Your task to perform on an android device: Go to ESPN.com Image 0: 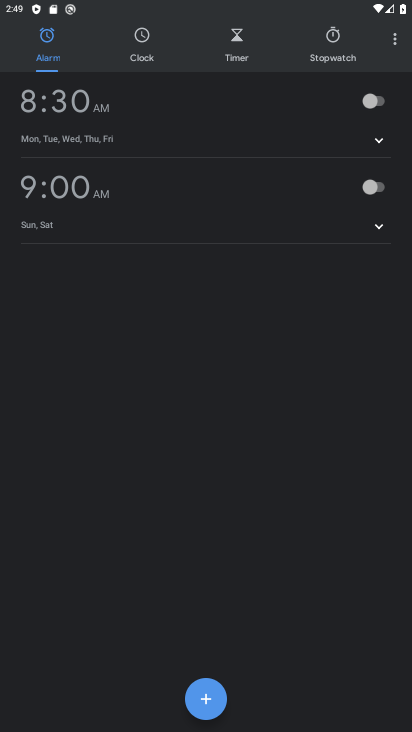
Step 0: press home button
Your task to perform on an android device: Go to ESPN.com Image 1: 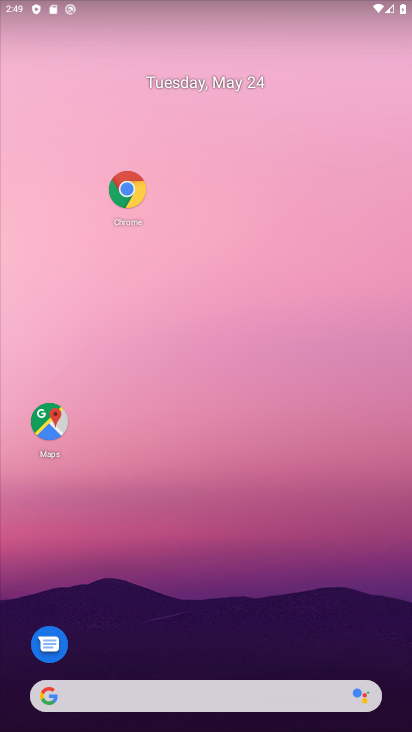
Step 1: drag from (185, 626) to (236, 43)
Your task to perform on an android device: Go to ESPN.com Image 2: 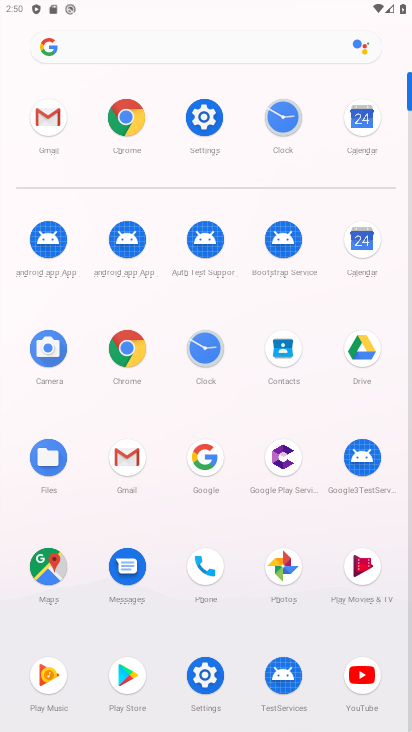
Step 2: click (208, 454)
Your task to perform on an android device: Go to ESPN.com Image 3: 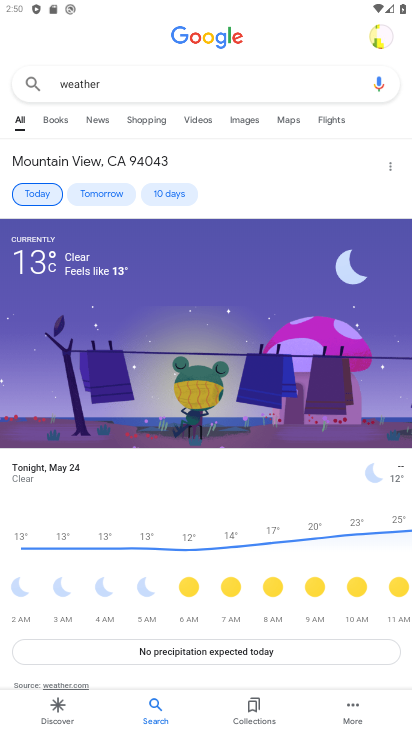
Step 3: click (144, 88)
Your task to perform on an android device: Go to ESPN.com Image 4: 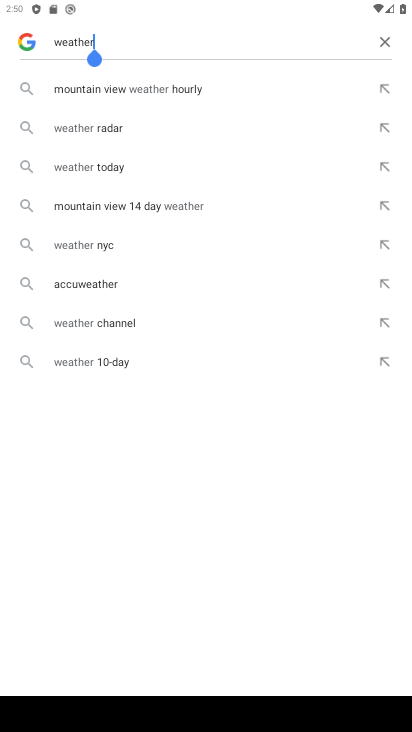
Step 4: click (386, 45)
Your task to perform on an android device: Go to ESPN.com Image 5: 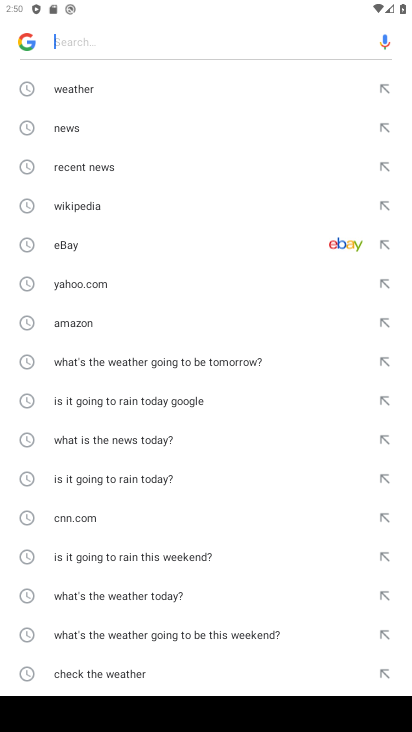
Step 5: type "espn.com"
Your task to perform on an android device: Go to ESPN.com Image 6: 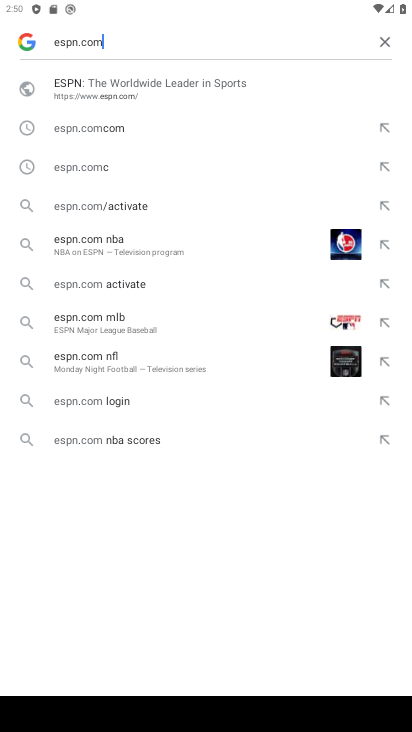
Step 6: click (75, 83)
Your task to perform on an android device: Go to ESPN.com Image 7: 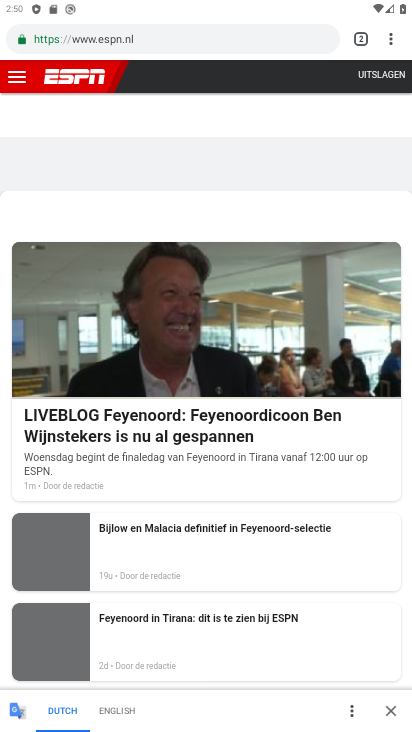
Step 7: task complete